Your task to perform on an android device: show emergency info Image 0: 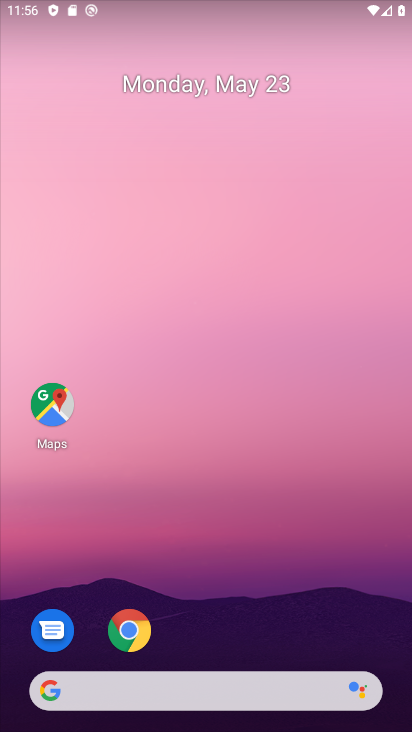
Step 0: drag from (369, 623) to (379, 191)
Your task to perform on an android device: show emergency info Image 1: 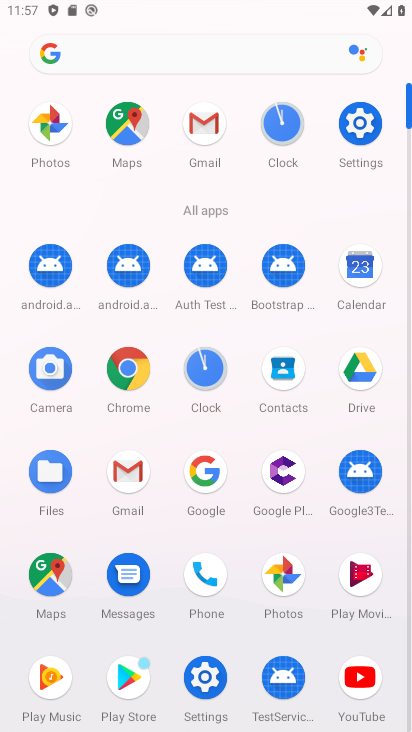
Step 1: click (215, 672)
Your task to perform on an android device: show emergency info Image 2: 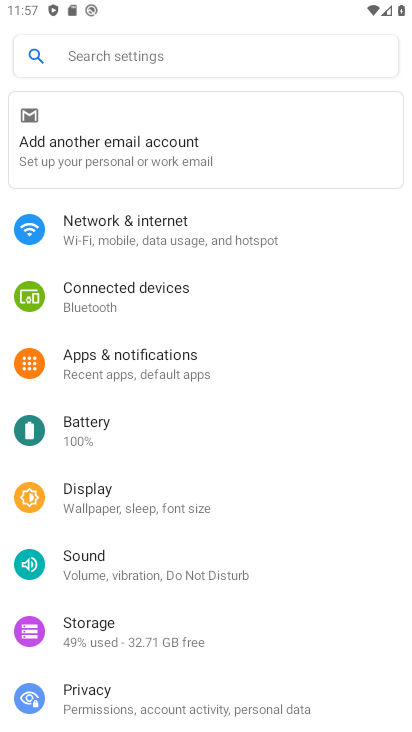
Step 2: drag from (275, 628) to (268, 319)
Your task to perform on an android device: show emergency info Image 3: 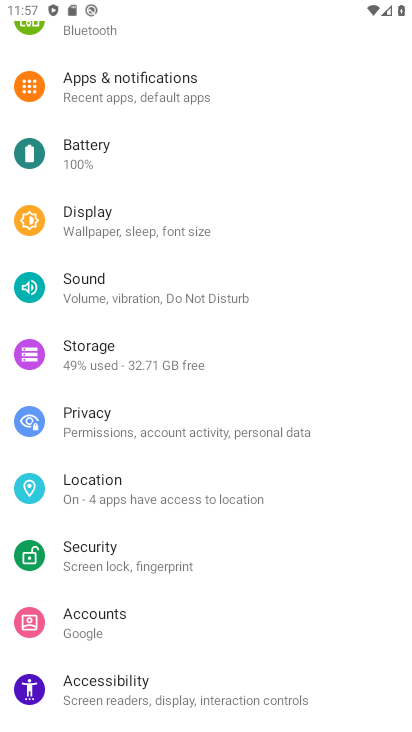
Step 3: drag from (221, 622) to (176, 337)
Your task to perform on an android device: show emergency info Image 4: 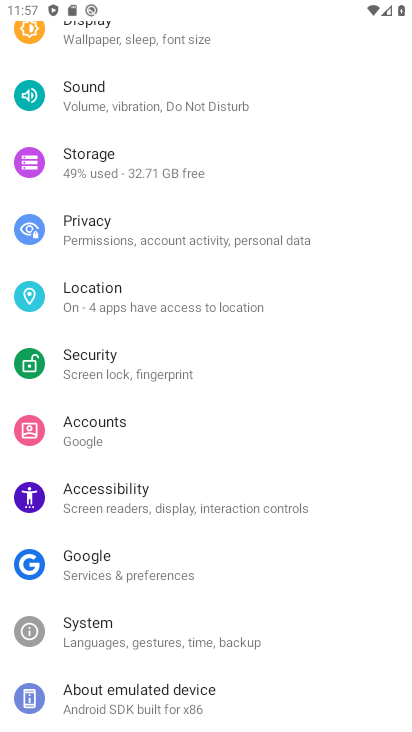
Step 4: click (172, 714)
Your task to perform on an android device: show emergency info Image 5: 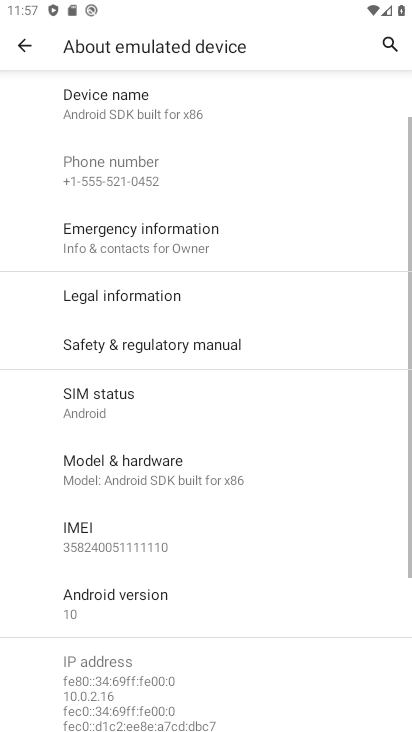
Step 5: click (253, 230)
Your task to perform on an android device: show emergency info Image 6: 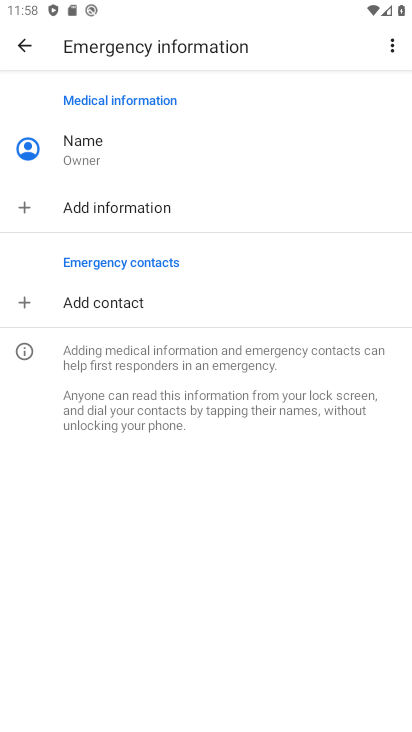
Step 6: task complete